Your task to perform on an android device: turn on the 24-hour format for clock Image 0: 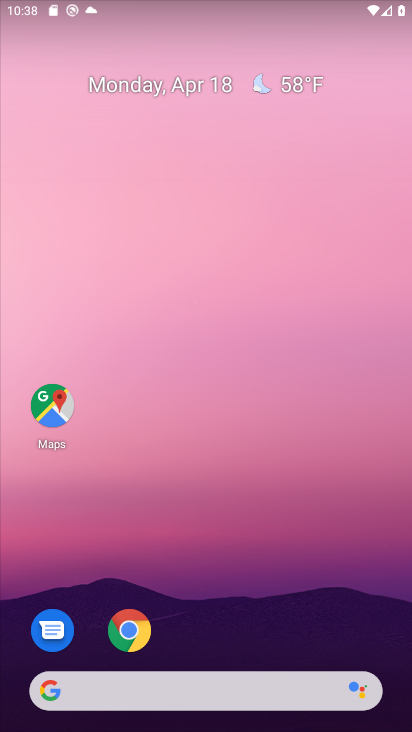
Step 0: drag from (229, 652) to (226, 38)
Your task to perform on an android device: turn on the 24-hour format for clock Image 1: 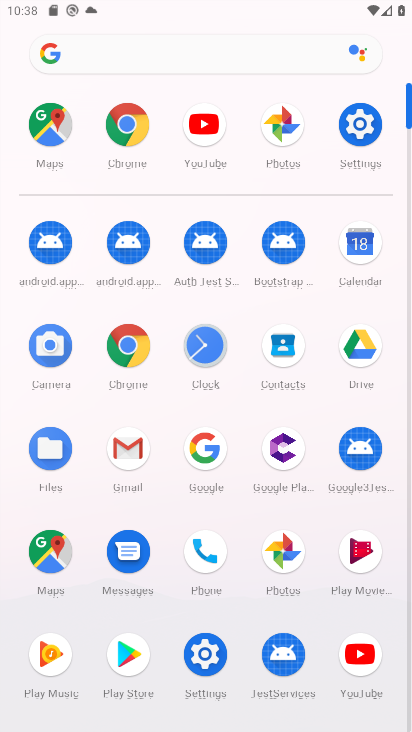
Step 1: click (205, 348)
Your task to perform on an android device: turn on the 24-hour format for clock Image 2: 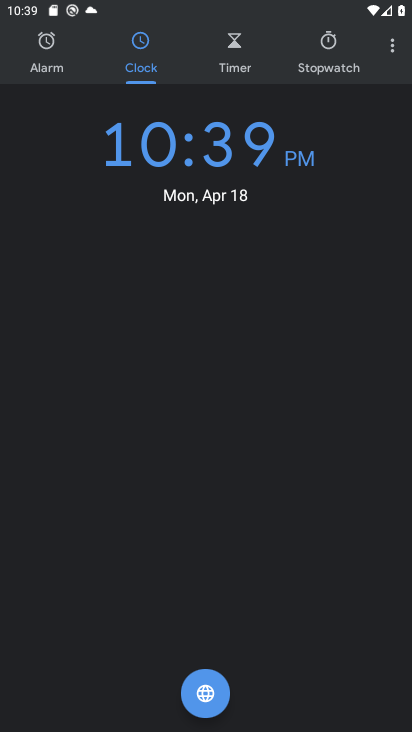
Step 2: click (385, 51)
Your task to perform on an android device: turn on the 24-hour format for clock Image 3: 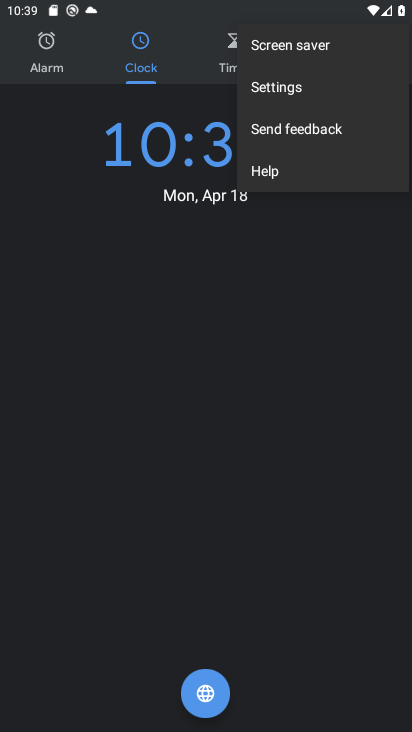
Step 3: click (280, 99)
Your task to perform on an android device: turn on the 24-hour format for clock Image 4: 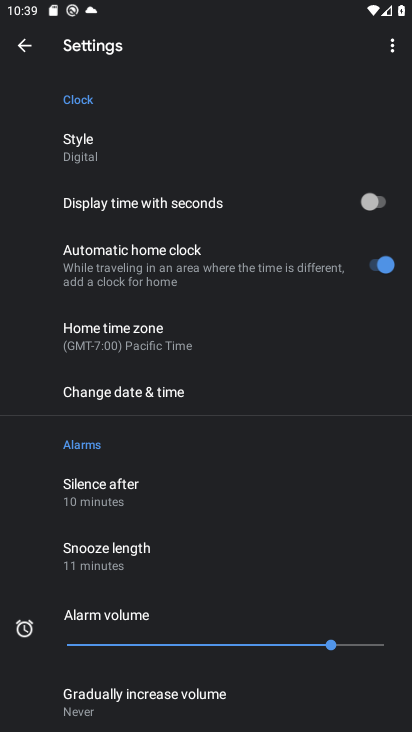
Step 4: click (185, 386)
Your task to perform on an android device: turn on the 24-hour format for clock Image 5: 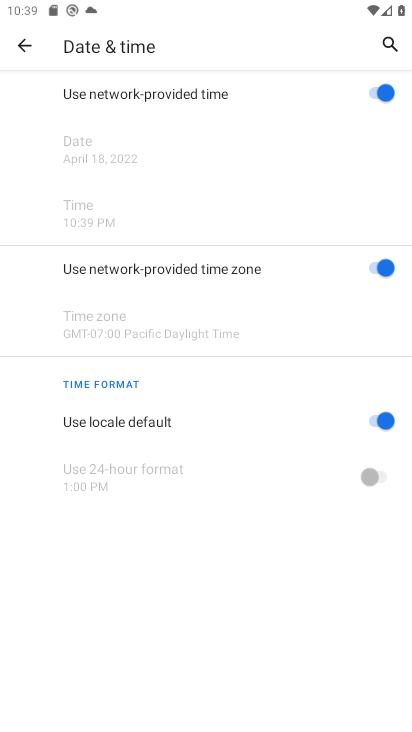
Step 5: click (389, 419)
Your task to perform on an android device: turn on the 24-hour format for clock Image 6: 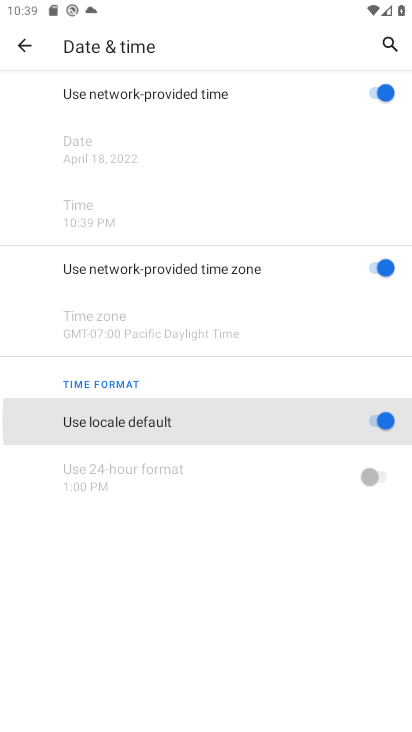
Step 6: click (370, 475)
Your task to perform on an android device: turn on the 24-hour format for clock Image 7: 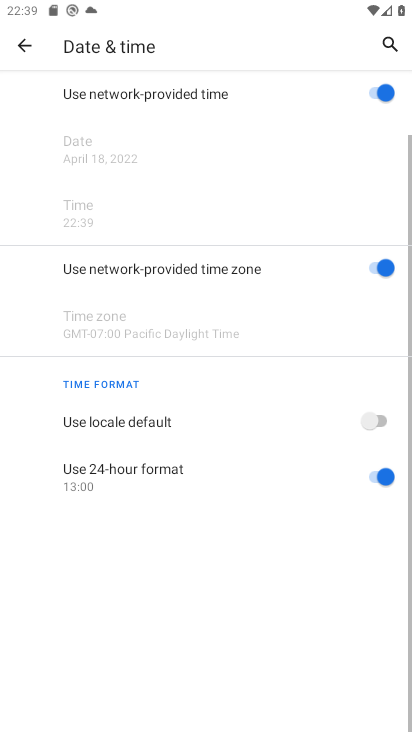
Step 7: task complete